Your task to perform on an android device: open chrome privacy settings Image 0: 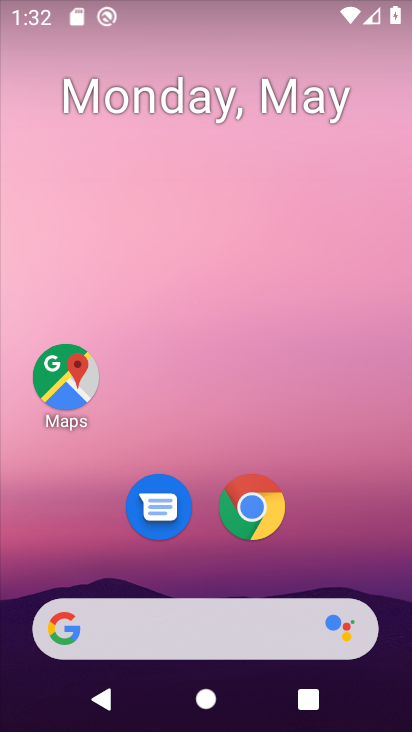
Step 0: drag from (334, 540) to (341, 90)
Your task to perform on an android device: open chrome privacy settings Image 1: 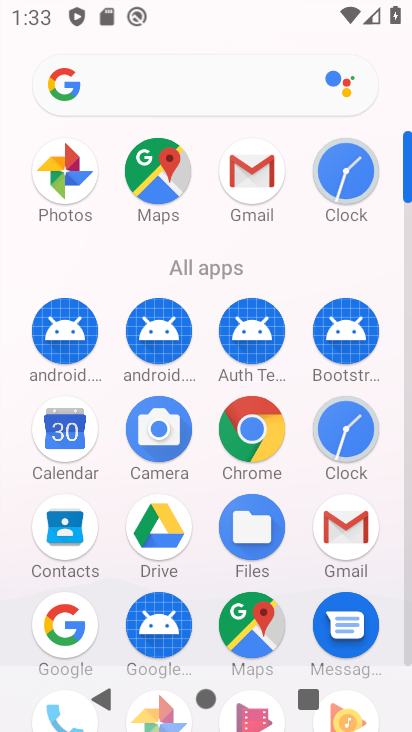
Step 1: click (258, 450)
Your task to perform on an android device: open chrome privacy settings Image 2: 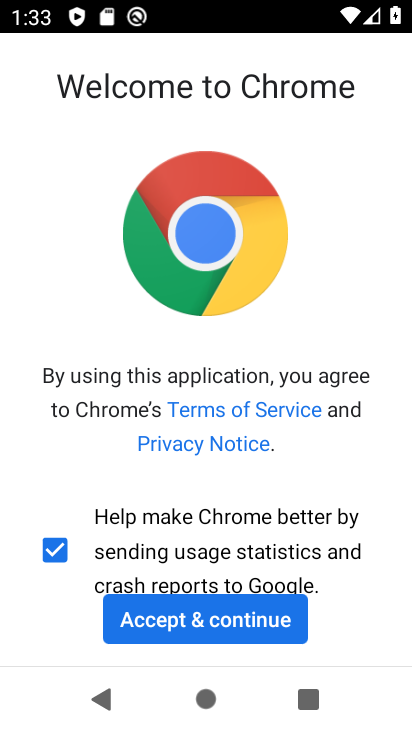
Step 2: click (285, 632)
Your task to perform on an android device: open chrome privacy settings Image 3: 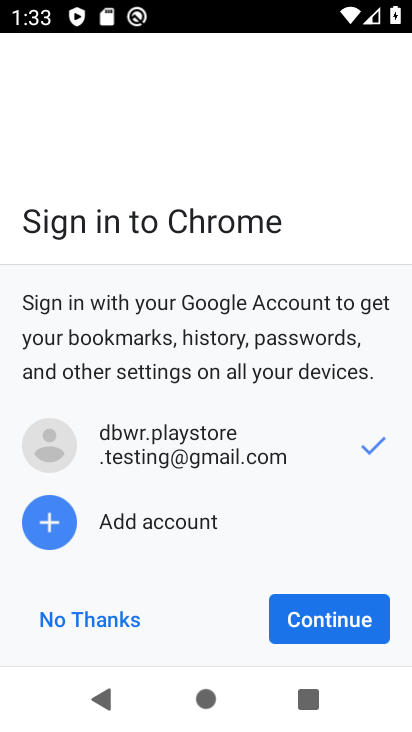
Step 3: click (332, 627)
Your task to perform on an android device: open chrome privacy settings Image 4: 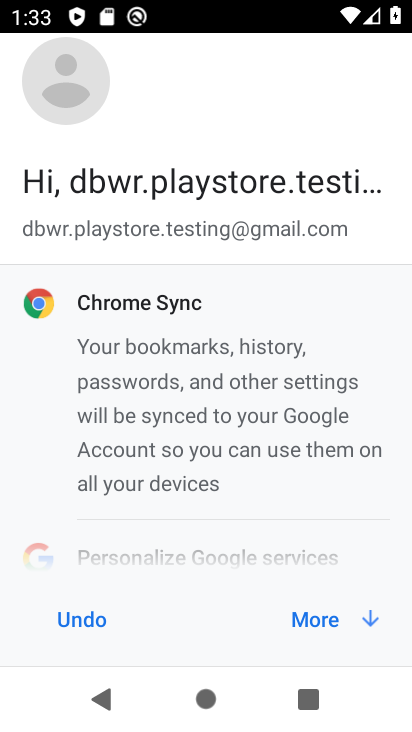
Step 4: click (332, 627)
Your task to perform on an android device: open chrome privacy settings Image 5: 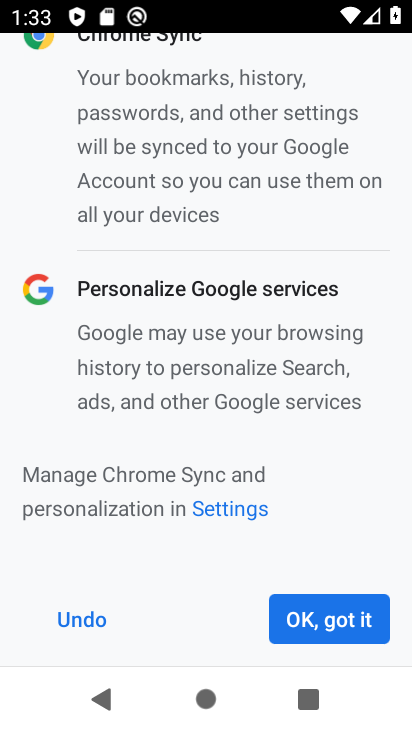
Step 5: click (353, 621)
Your task to perform on an android device: open chrome privacy settings Image 6: 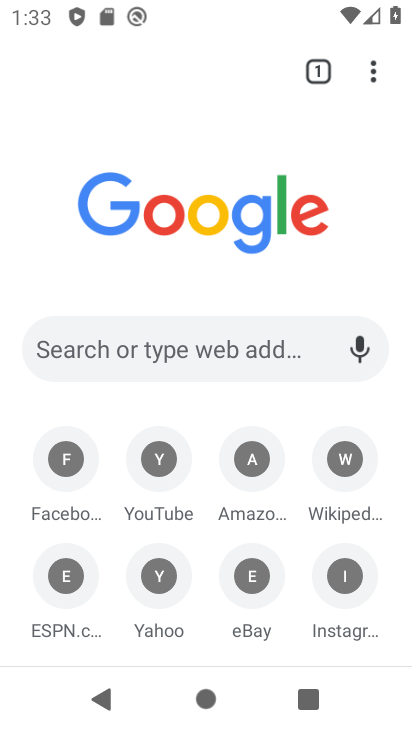
Step 6: drag from (360, 90) to (150, 502)
Your task to perform on an android device: open chrome privacy settings Image 7: 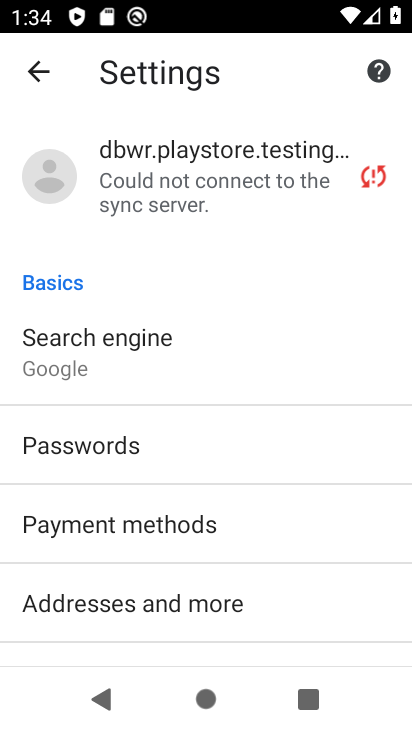
Step 7: drag from (307, 598) to (306, 401)
Your task to perform on an android device: open chrome privacy settings Image 8: 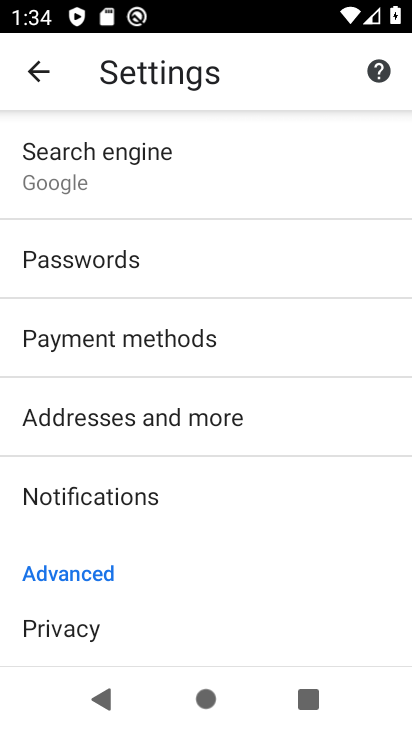
Step 8: click (94, 637)
Your task to perform on an android device: open chrome privacy settings Image 9: 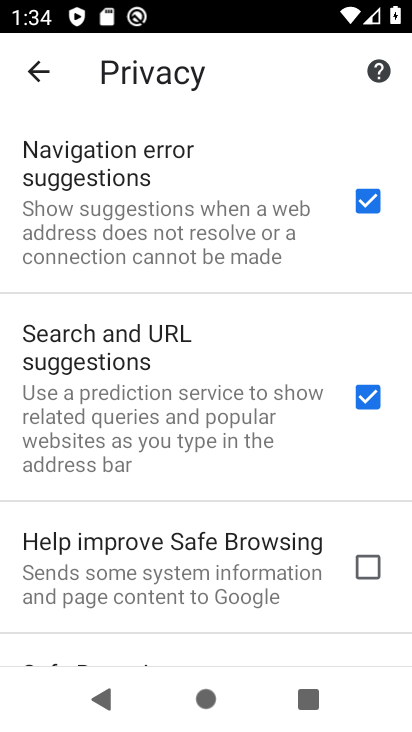
Step 9: task complete